Your task to perform on an android device: Search for the best 4k TVs Image 0: 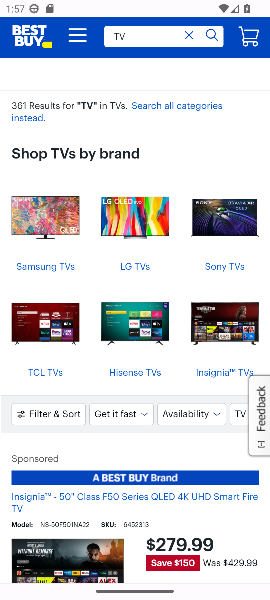
Step 0: press home button
Your task to perform on an android device: Search for the best 4k TVs Image 1: 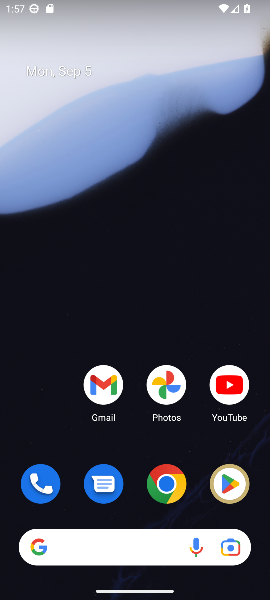
Step 1: click (164, 476)
Your task to perform on an android device: Search for the best 4k TVs Image 2: 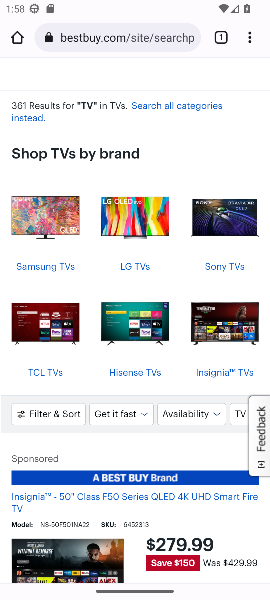
Step 2: click (108, 41)
Your task to perform on an android device: Search for the best 4k TVs Image 3: 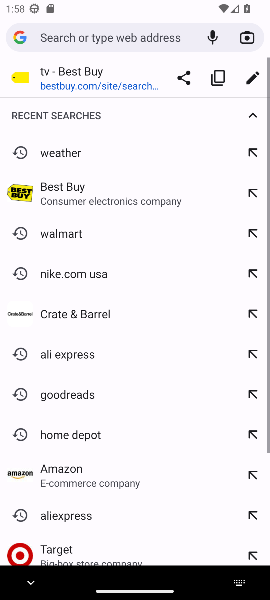
Step 3: click (113, 36)
Your task to perform on an android device: Search for the best 4k TVs Image 4: 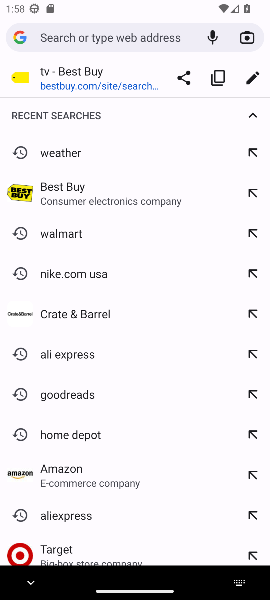
Step 4: type "best 4k TVs"
Your task to perform on an android device: Search for the best 4k TVs Image 5: 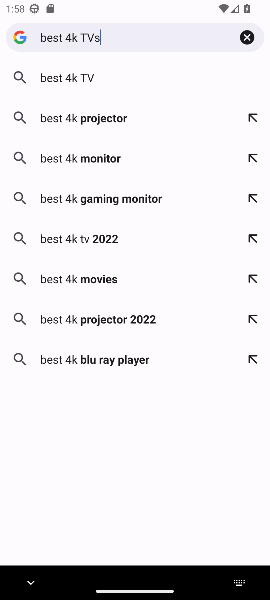
Step 5: press enter
Your task to perform on an android device: Search for the best 4k TVs Image 6: 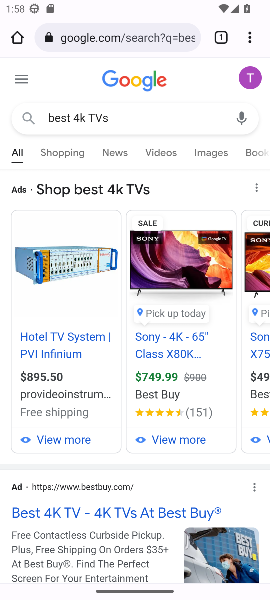
Step 6: drag from (124, 466) to (166, 285)
Your task to perform on an android device: Search for the best 4k TVs Image 7: 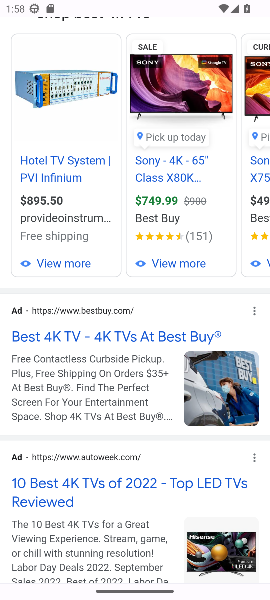
Step 7: drag from (139, 457) to (179, 341)
Your task to perform on an android device: Search for the best 4k TVs Image 8: 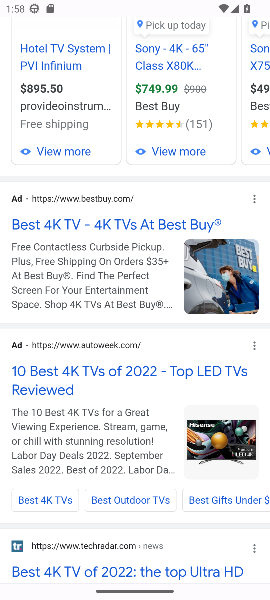
Step 8: click (142, 373)
Your task to perform on an android device: Search for the best 4k TVs Image 9: 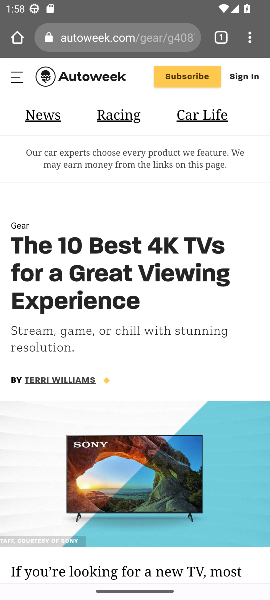
Step 9: task complete